Your task to perform on an android device: open the mobile data screen to see how much data has been used Image 0: 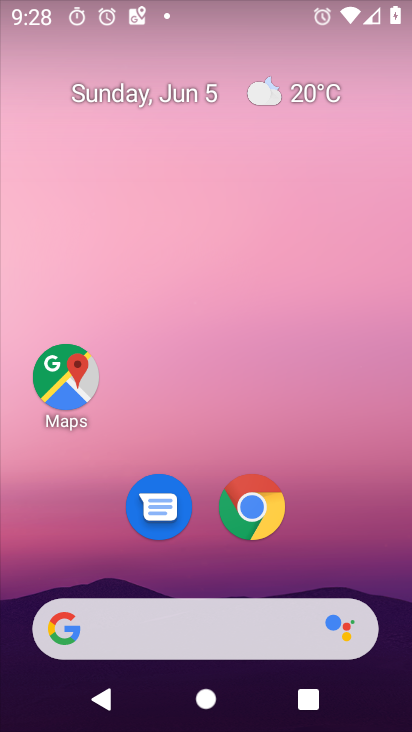
Step 0: drag from (328, 564) to (194, 6)
Your task to perform on an android device: open the mobile data screen to see how much data has been used Image 1: 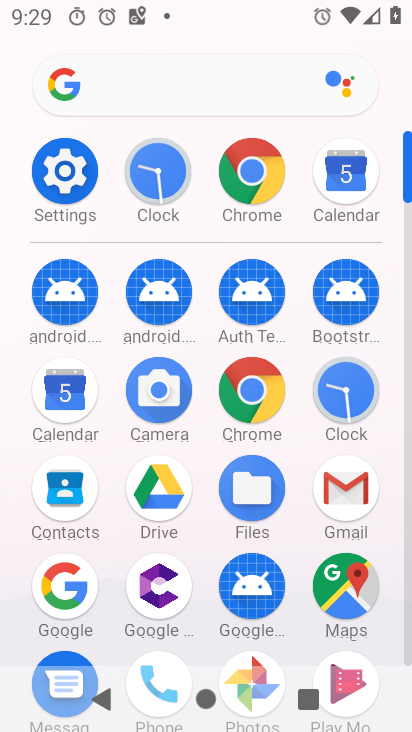
Step 1: click (63, 170)
Your task to perform on an android device: open the mobile data screen to see how much data has been used Image 2: 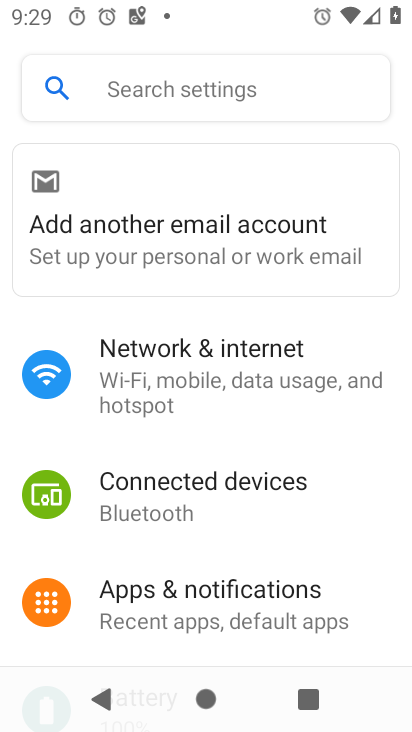
Step 2: click (199, 405)
Your task to perform on an android device: open the mobile data screen to see how much data has been used Image 3: 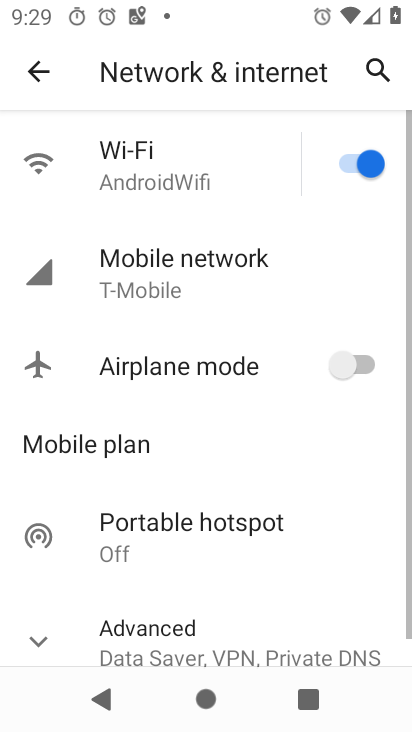
Step 3: click (179, 274)
Your task to perform on an android device: open the mobile data screen to see how much data has been used Image 4: 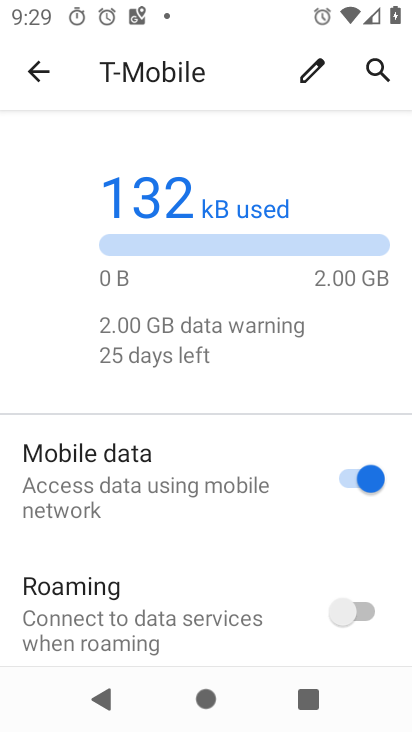
Step 4: task complete